Your task to perform on an android device: What's on my calendar tomorrow? Image 0: 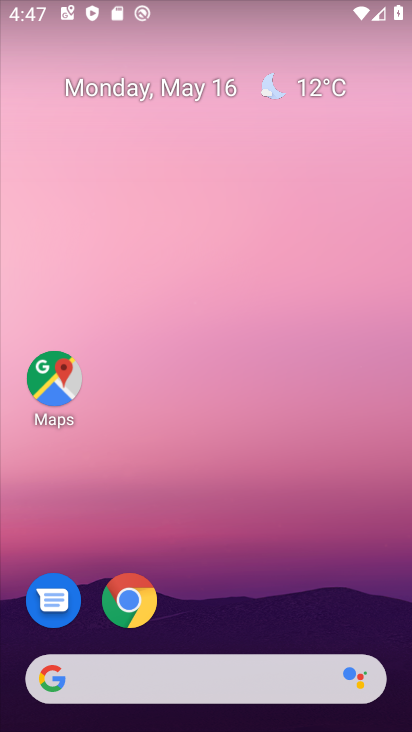
Step 0: drag from (222, 603) to (245, 290)
Your task to perform on an android device: What's on my calendar tomorrow? Image 1: 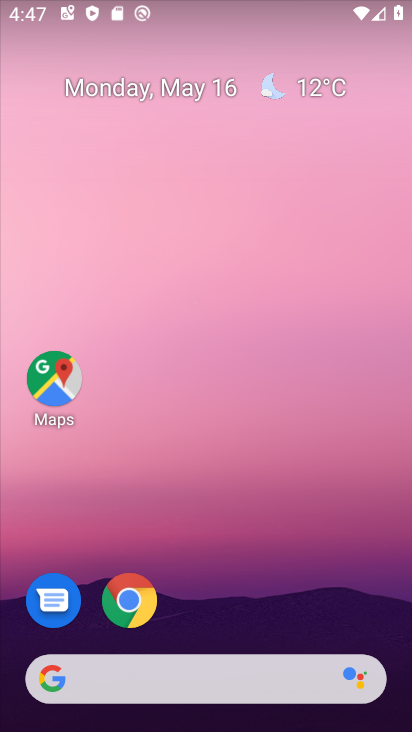
Step 1: drag from (232, 638) to (268, 283)
Your task to perform on an android device: What's on my calendar tomorrow? Image 2: 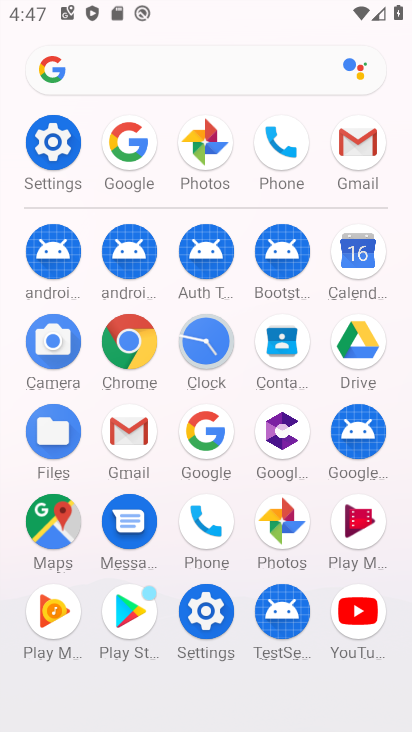
Step 2: click (355, 267)
Your task to perform on an android device: What's on my calendar tomorrow? Image 3: 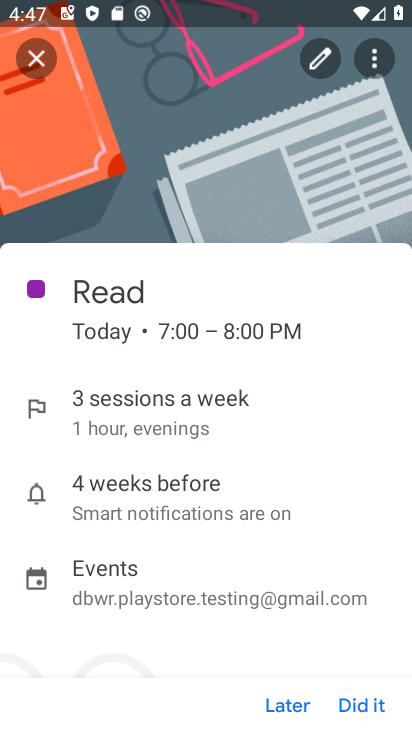
Step 3: click (41, 54)
Your task to perform on an android device: What's on my calendar tomorrow? Image 4: 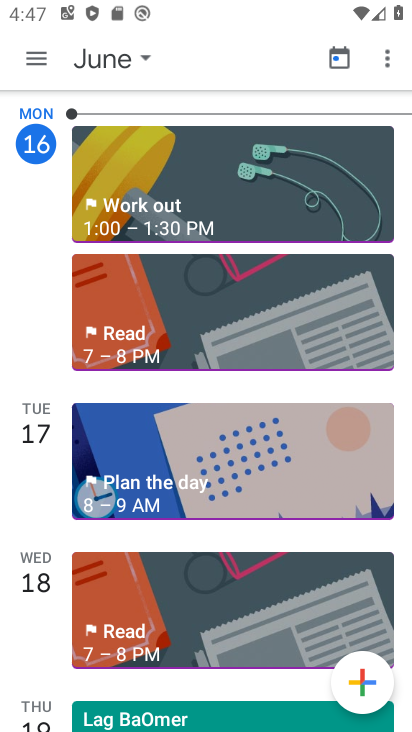
Step 4: click (106, 64)
Your task to perform on an android device: What's on my calendar tomorrow? Image 5: 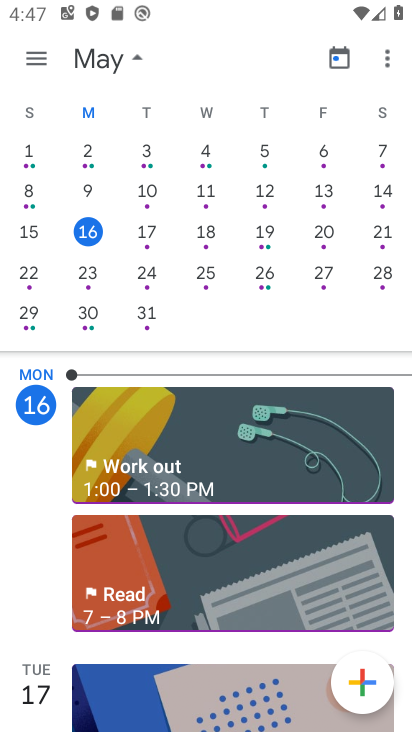
Step 5: click (152, 237)
Your task to perform on an android device: What's on my calendar tomorrow? Image 6: 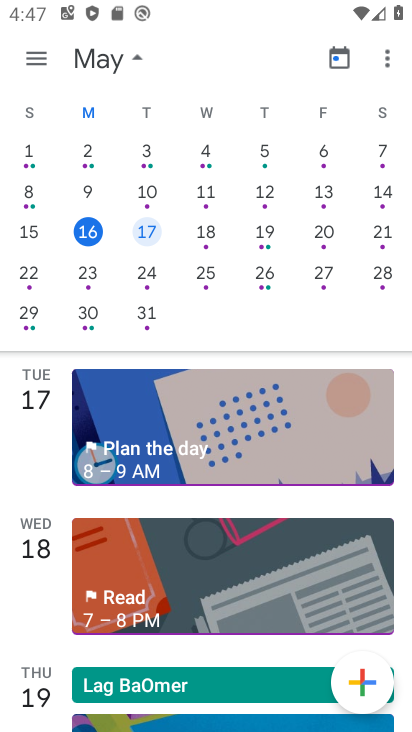
Step 6: task complete